Your task to perform on an android device: Open Google Chrome and click the shortcut for Amazon.com Image 0: 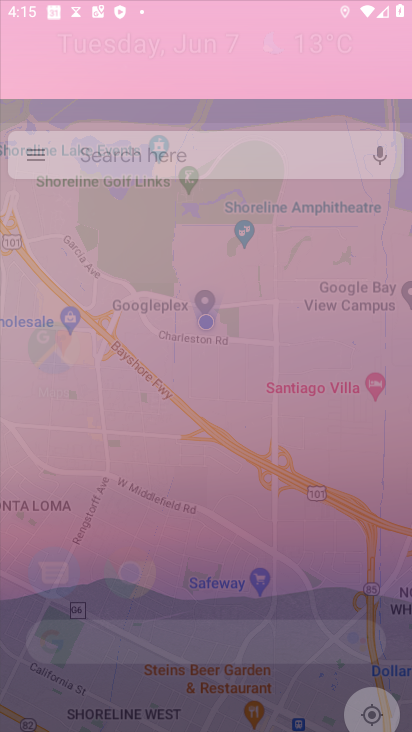
Step 0: drag from (116, 20) to (77, 75)
Your task to perform on an android device: Open Google Chrome and click the shortcut for Amazon.com Image 1: 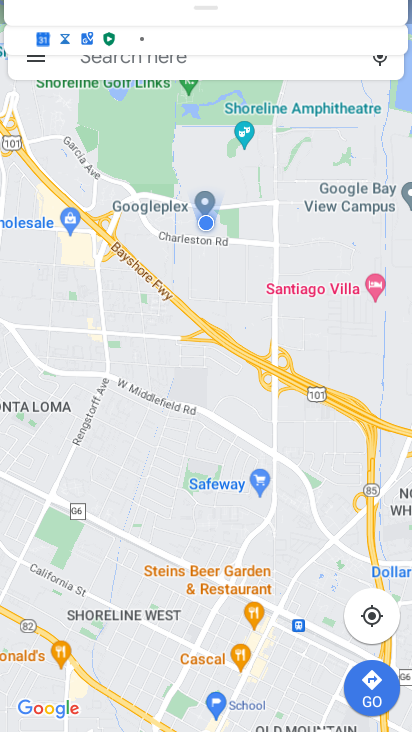
Step 1: drag from (226, 541) to (138, 165)
Your task to perform on an android device: Open Google Chrome and click the shortcut for Amazon.com Image 2: 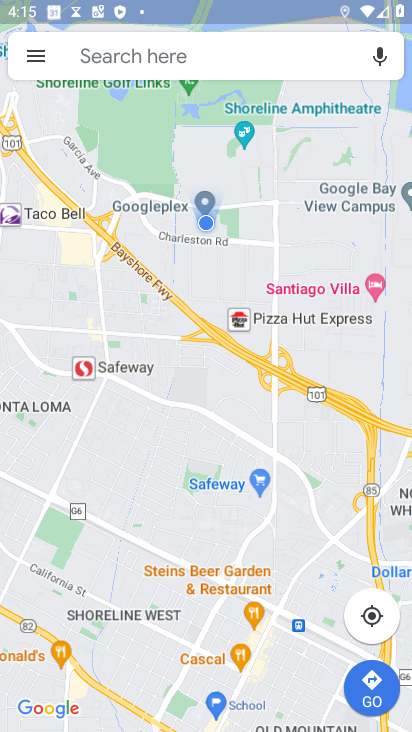
Step 2: press back button
Your task to perform on an android device: Open Google Chrome and click the shortcut for Amazon.com Image 3: 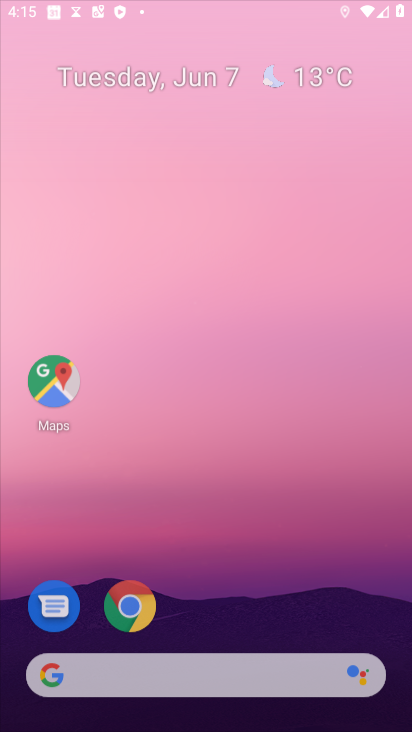
Step 3: drag from (255, 615) to (204, 139)
Your task to perform on an android device: Open Google Chrome and click the shortcut for Amazon.com Image 4: 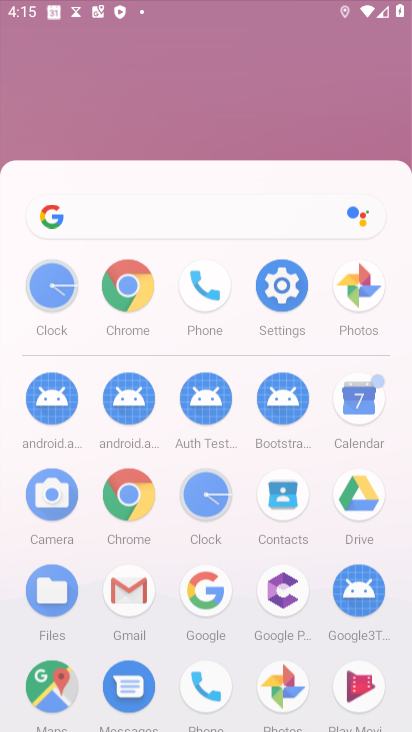
Step 4: drag from (208, 477) to (169, 137)
Your task to perform on an android device: Open Google Chrome and click the shortcut for Amazon.com Image 5: 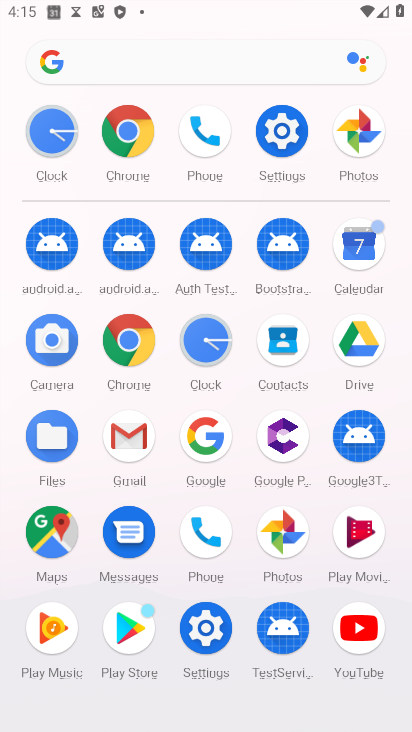
Step 5: drag from (278, 555) to (222, 248)
Your task to perform on an android device: Open Google Chrome and click the shortcut for Amazon.com Image 6: 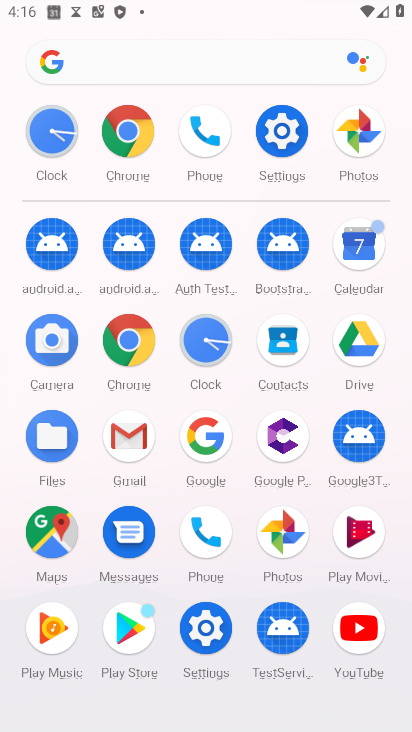
Step 6: click (140, 348)
Your task to perform on an android device: Open Google Chrome and click the shortcut for Amazon.com Image 7: 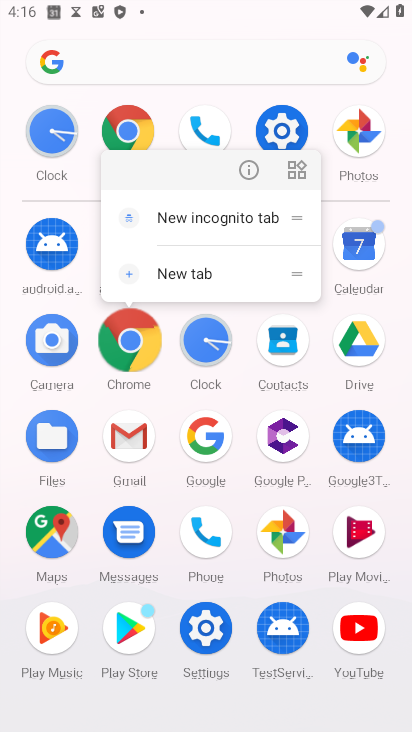
Step 7: click (141, 347)
Your task to perform on an android device: Open Google Chrome and click the shortcut for Amazon.com Image 8: 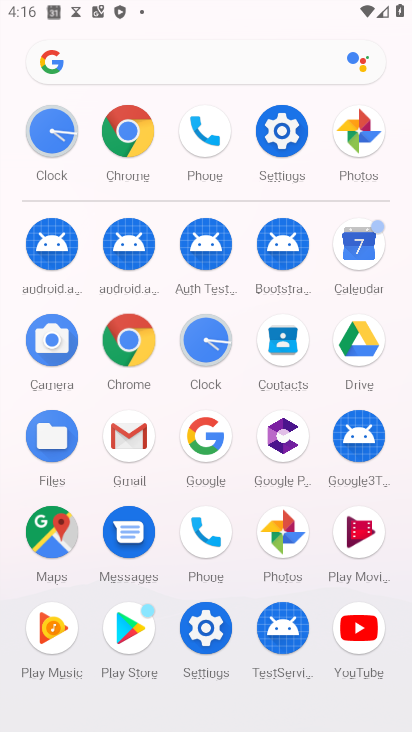
Step 8: click (143, 346)
Your task to perform on an android device: Open Google Chrome and click the shortcut for Amazon.com Image 9: 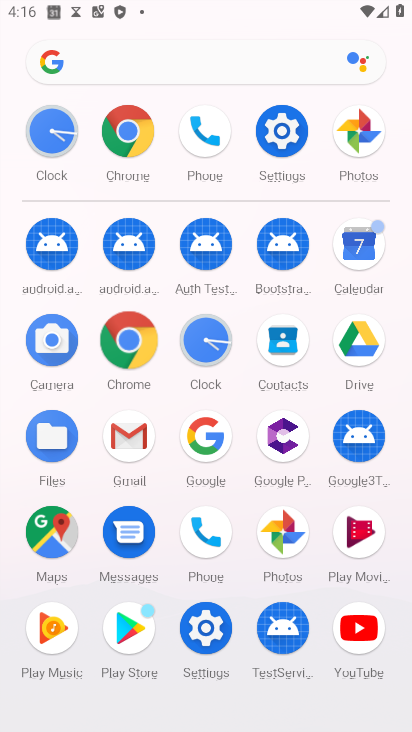
Step 9: click (143, 346)
Your task to perform on an android device: Open Google Chrome and click the shortcut for Amazon.com Image 10: 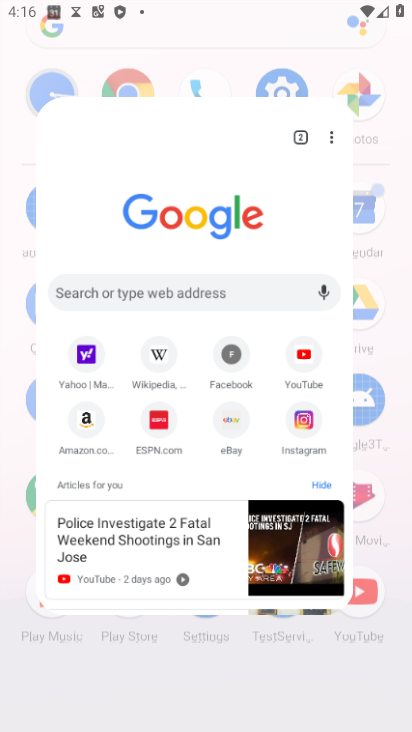
Step 10: click (143, 346)
Your task to perform on an android device: Open Google Chrome and click the shortcut for Amazon.com Image 11: 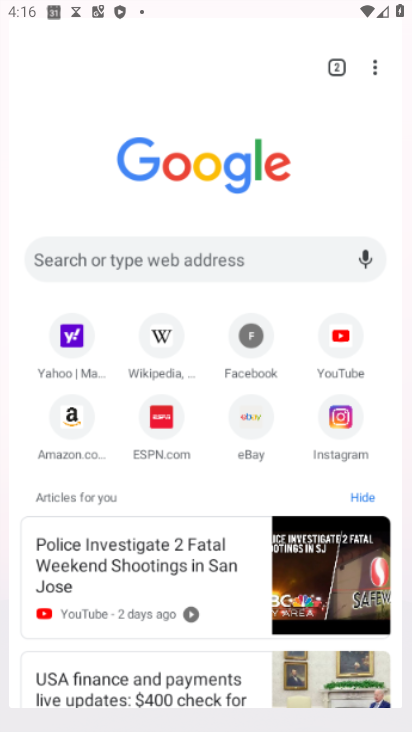
Step 11: click (144, 346)
Your task to perform on an android device: Open Google Chrome and click the shortcut for Amazon.com Image 12: 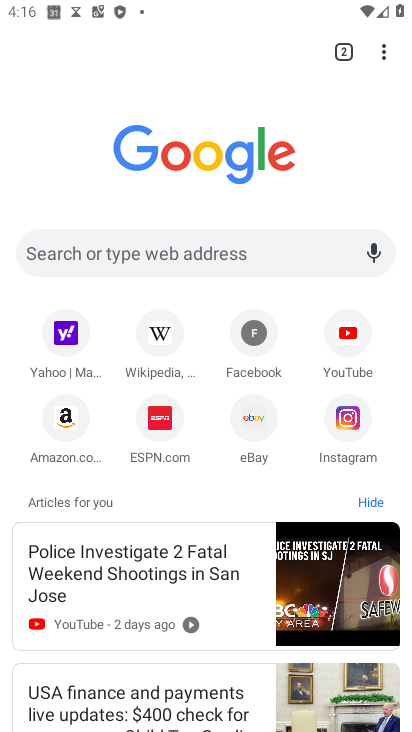
Step 12: click (73, 415)
Your task to perform on an android device: Open Google Chrome and click the shortcut for Amazon.com Image 13: 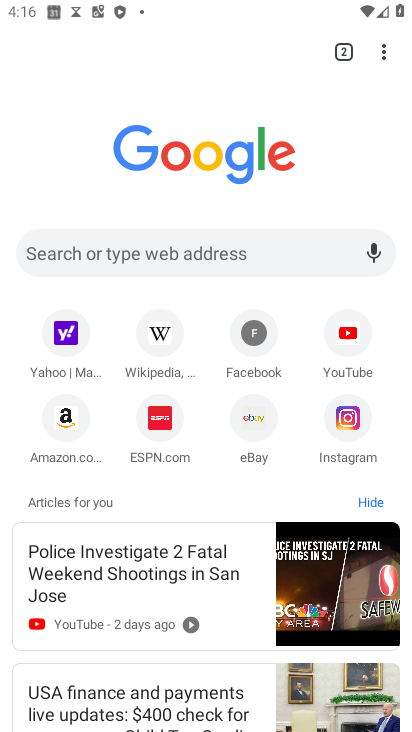
Step 13: click (71, 415)
Your task to perform on an android device: Open Google Chrome and click the shortcut for Amazon.com Image 14: 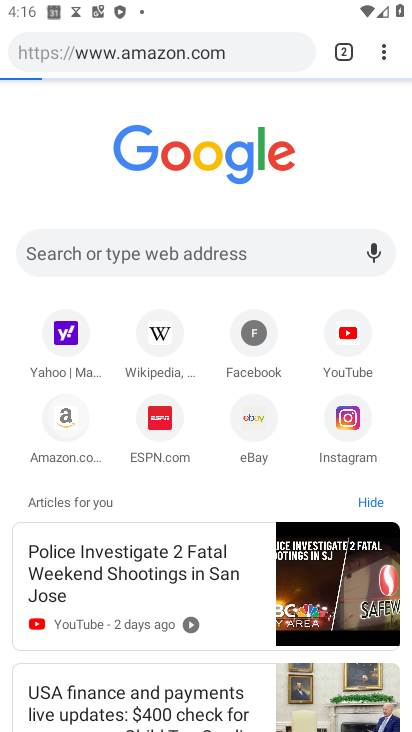
Step 14: click (71, 415)
Your task to perform on an android device: Open Google Chrome and click the shortcut for Amazon.com Image 15: 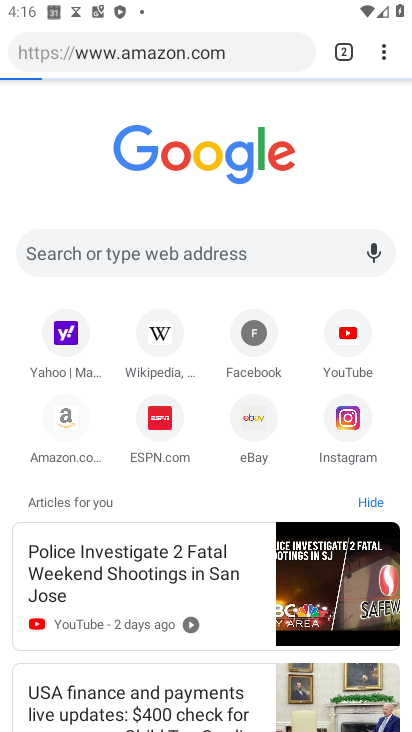
Step 15: click (70, 417)
Your task to perform on an android device: Open Google Chrome and click the shortcut for Amazon.com Image 16: 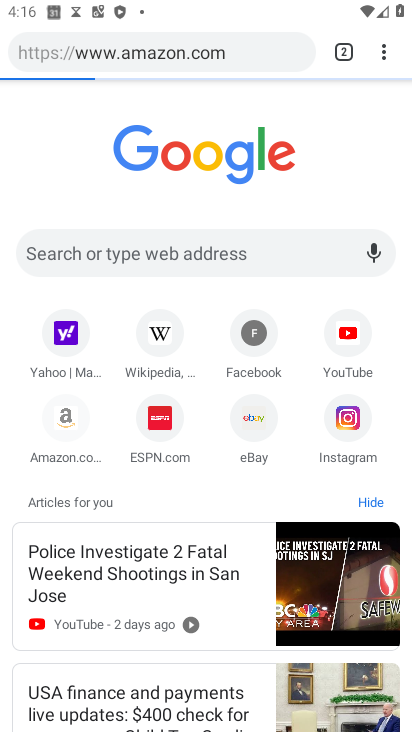
Step 16: click (63, 416)
Your task to perform on an android device: Open Google Chrome and click the shortcut for Amazon.com Image 17: 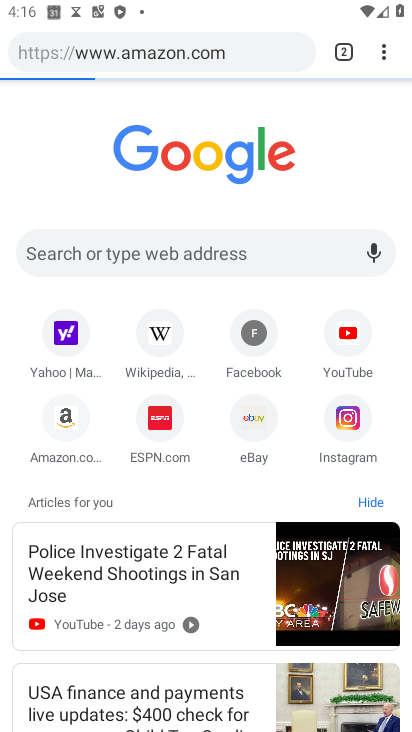
Step 17: click (62, 416)
Your task to perform on an android device: Open Google Chrome and click the shortcut for Amazon.com Image 18: 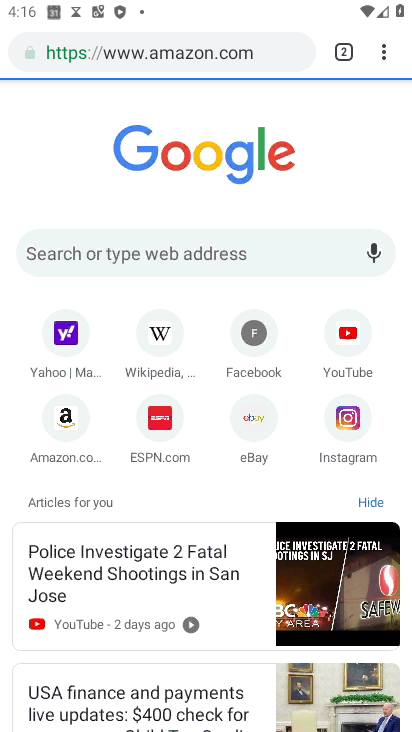
Step 18: click (59, 419)
Your task to perform on an android device: Open Google Chrome and click the shortcut for Amazon.com Image 19: 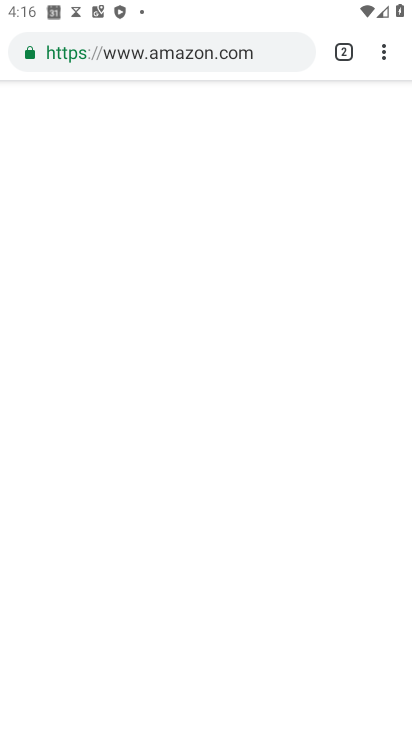
Step 19: click (57, 420)
Your task to perform on an android device: Open Google Chrome and click the shortcut for Amazon.com Image 20: 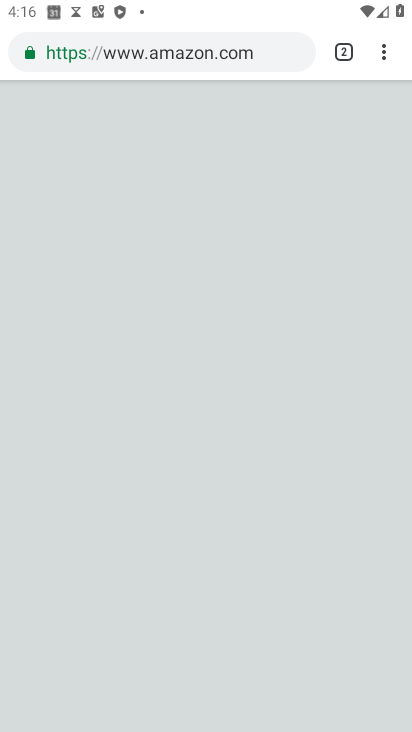
Step 20: click (59, 420)
Your task to perform on an android device: Open Google Chrome and click the shortcut for Amazon.com Image 21: 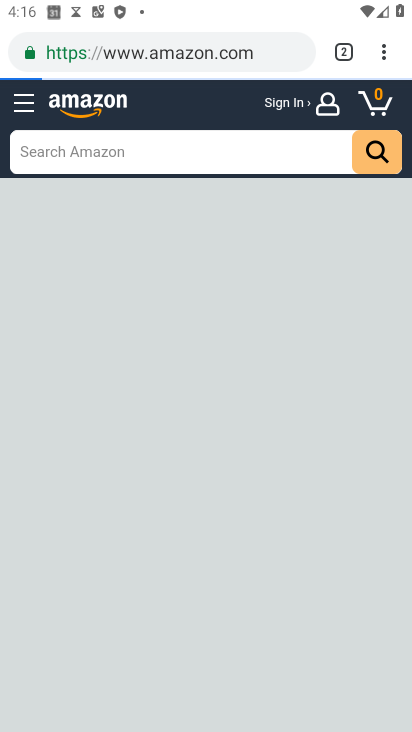
Step 21: task complete